Your task to perform on an android device: When is my next meeting? Image 0: 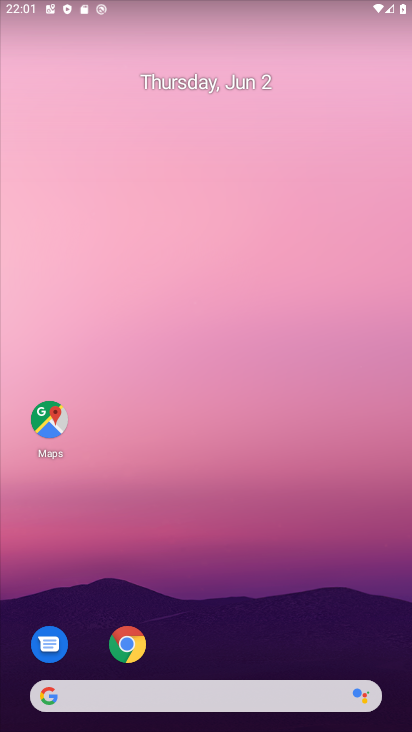
Step 0: drag from (173, 652) to (155, 181)
Your task to perform on an android device: When is my next meeting? Image 1: 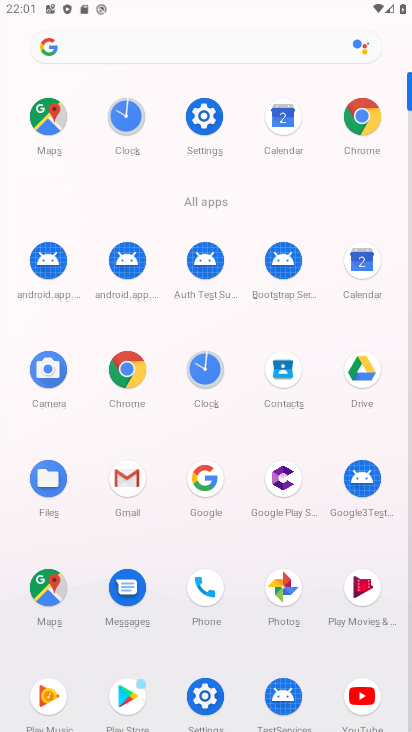
Step 1: click (370, 297)
Your task to perform on an android device: When is my next meeting? Image 2: 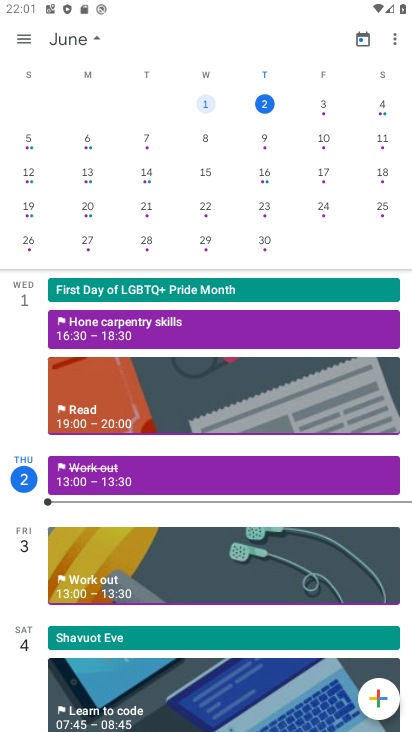
Step 2: task complete